Your task to perform on an android device: open a new tab in the chrome app Image 0: 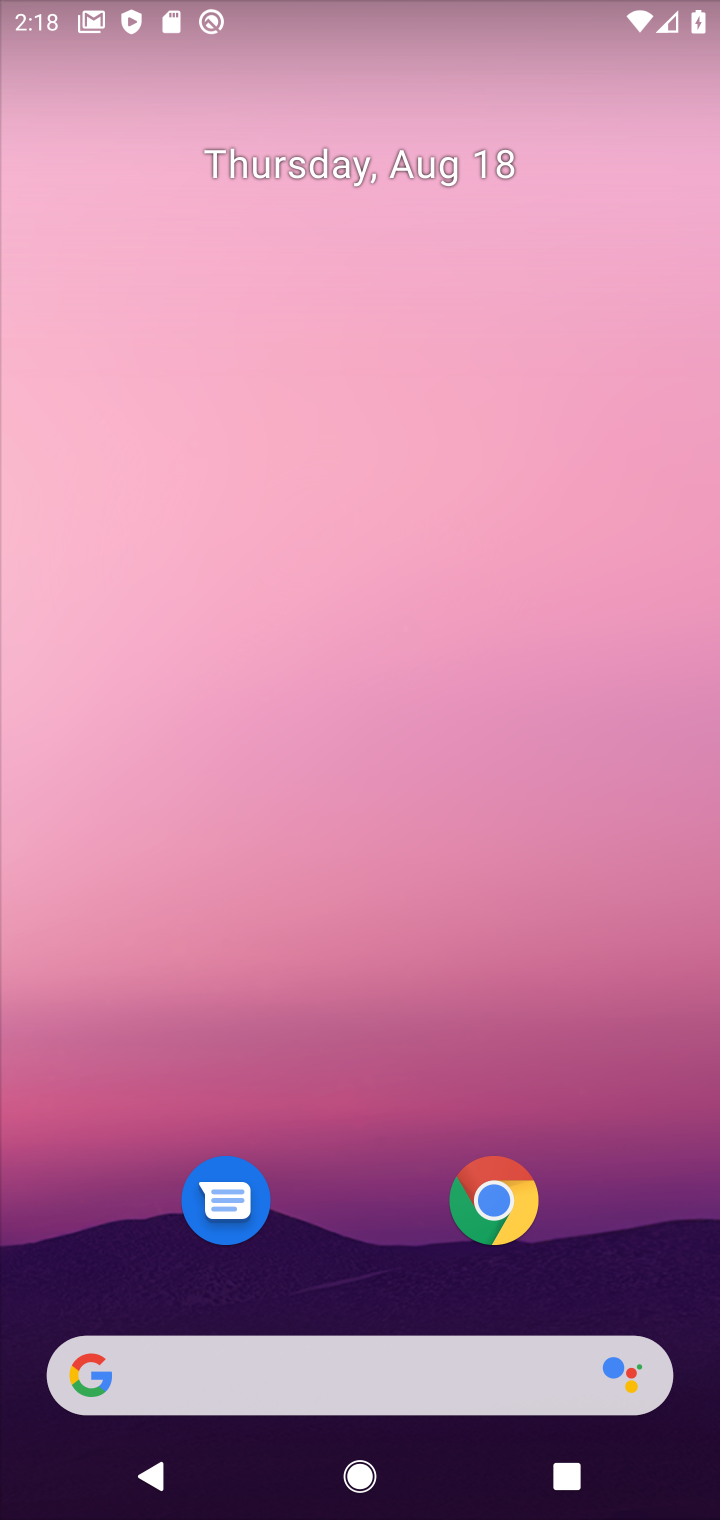
Step 0: drag from (345, 1198) to (349, 59)
Your task to perform on an android device: open a new tab in the chrome app Image 1: 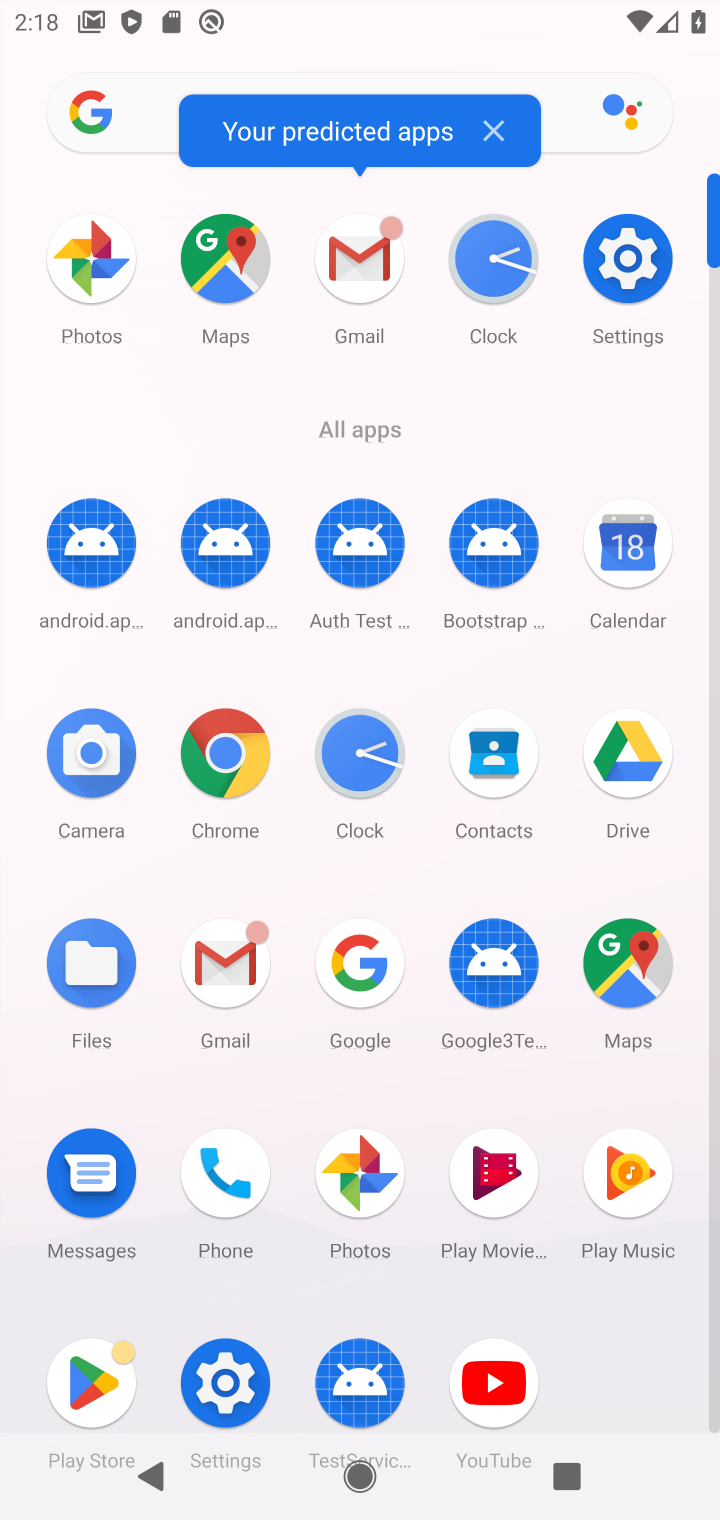
Step 1: click (201, 742)
Your task to perform on an android device: open a new tab in the chrome app Image 2: 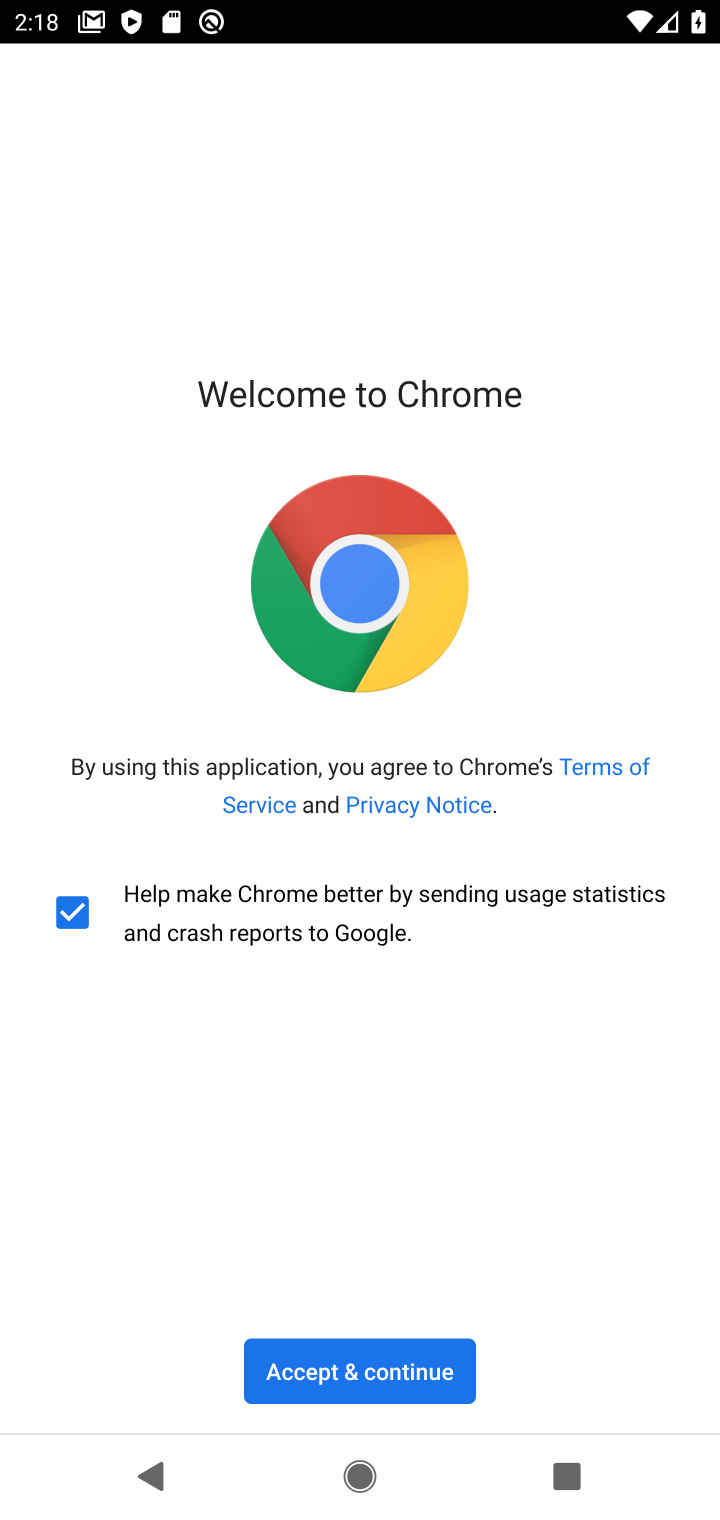
Step 2: click (390, 1386)
Your task to perform on an android device: open a new tab in the chrome app Image 3: 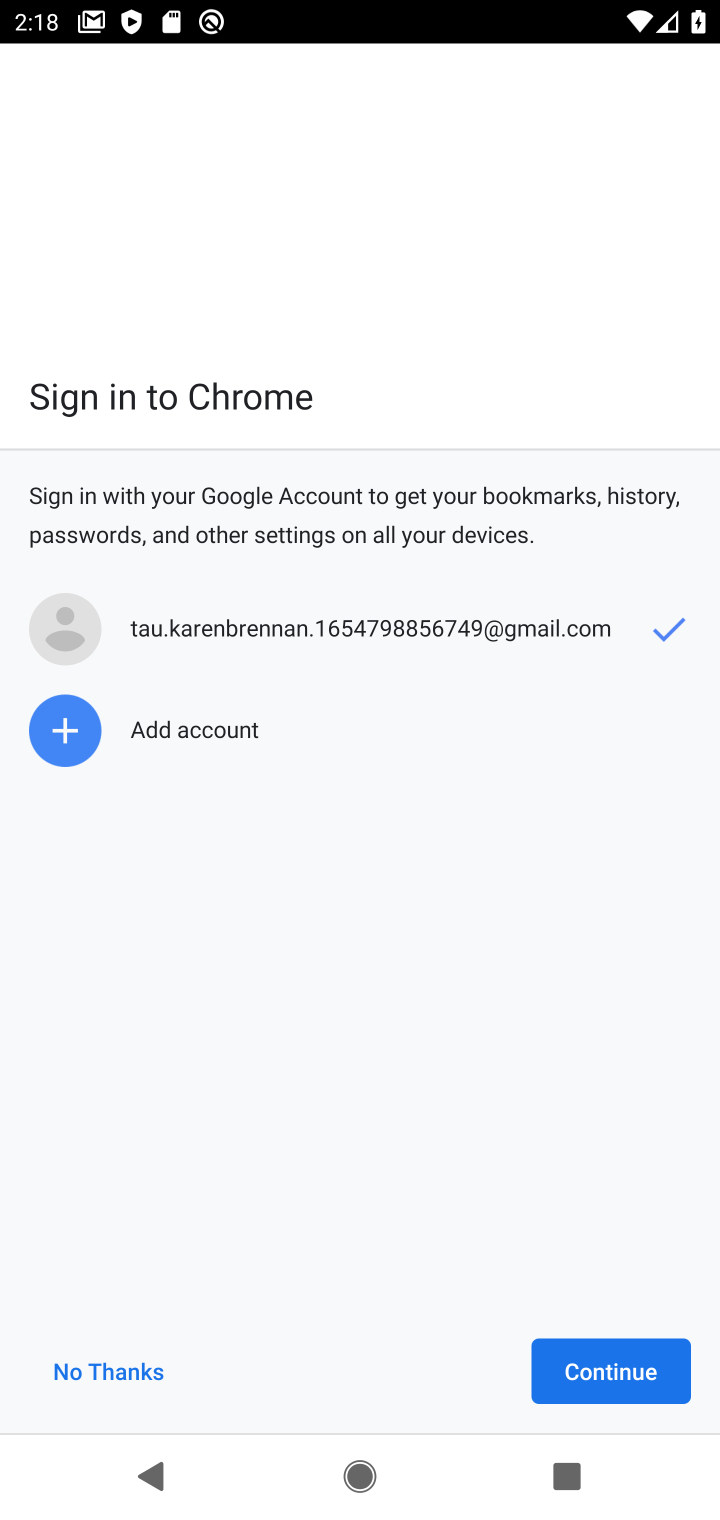
Step 3: click (618, 1369)
Your task to perform on an android device: open a new tab in the chrome app Image 4: 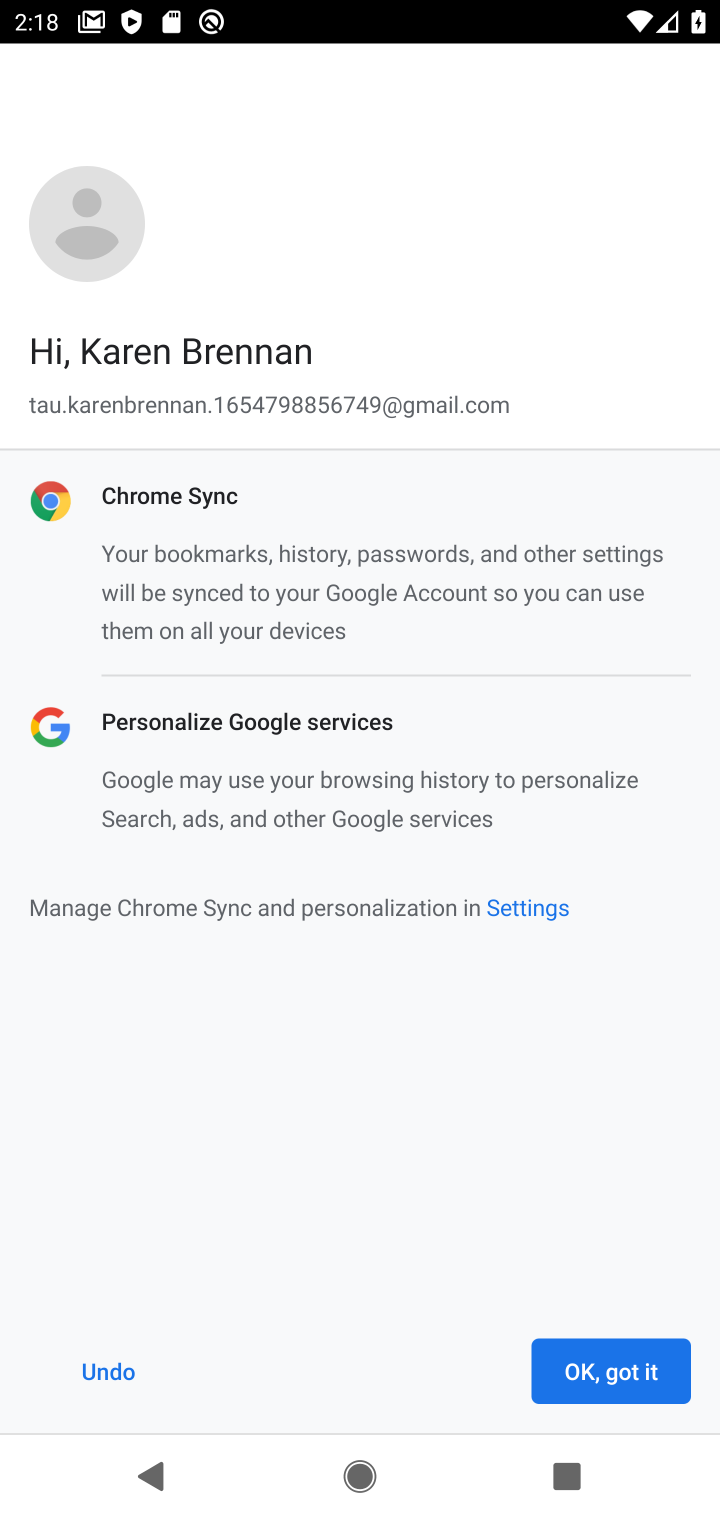
Step 4: click (618, 1369)
Your task to perform on an android device: open a new tab in the chrome app Image 5: 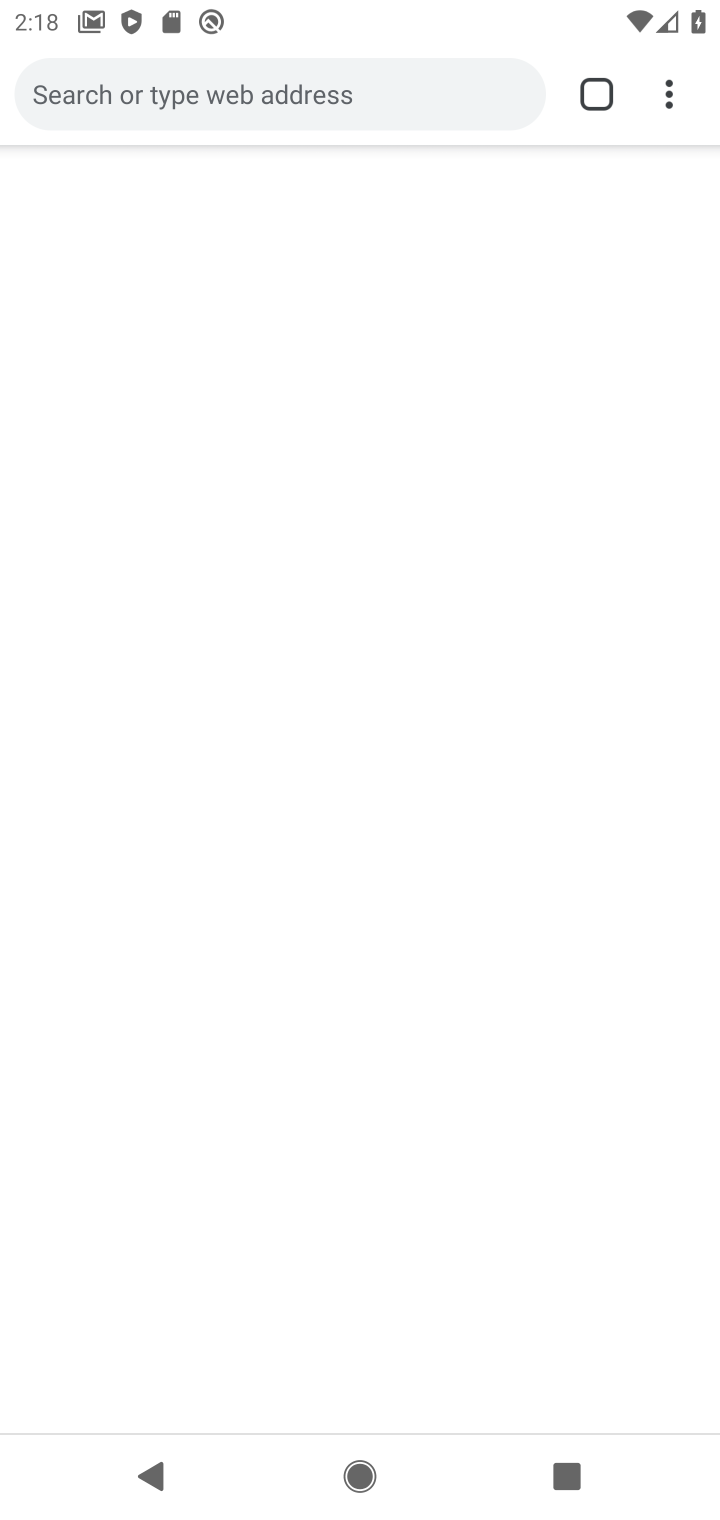
Step 5: task complete